Your task to perform on an android device: Open settings Image 0: 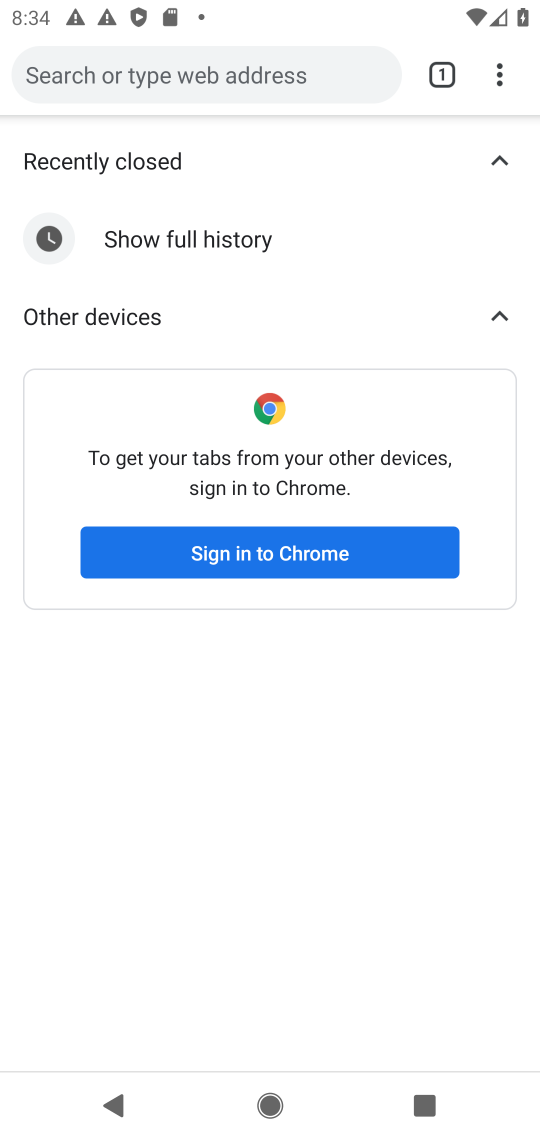
Step 0: press home button
Your task to perform on an android device: Open settings Image 1: 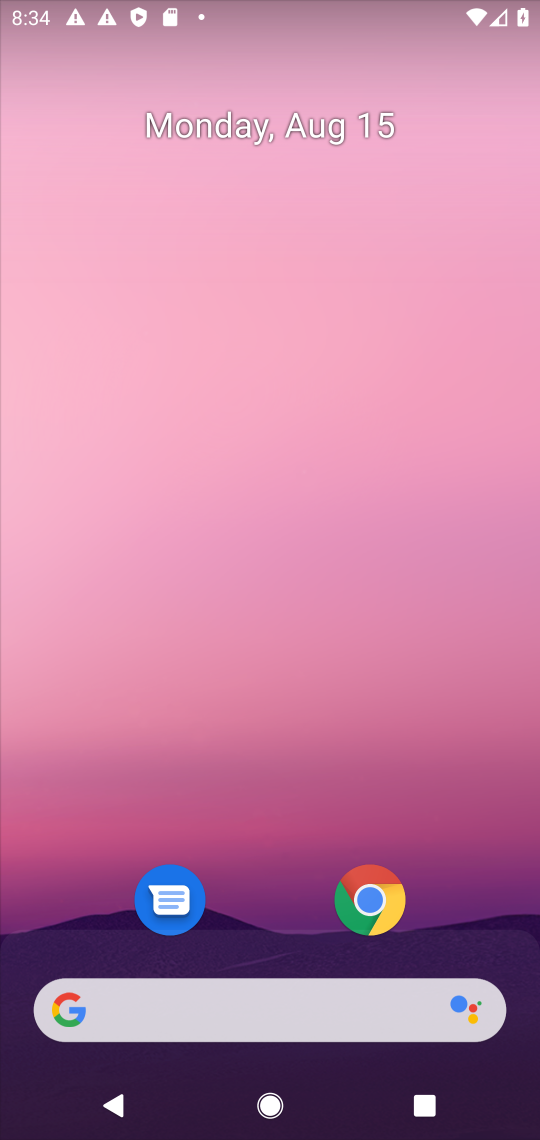
Step 1: drag from (453, 811) to (360, 156)
Your task to perform on an android device: Open settings Image 2: 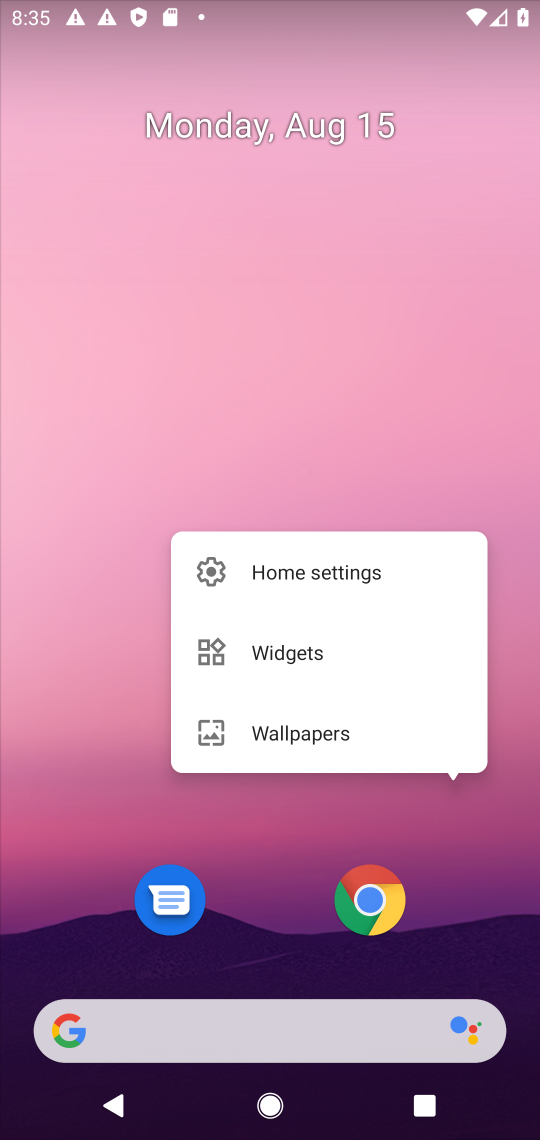
Step 2: click (501, 914)
Your task to perform on an android device: Open settings Image 3: 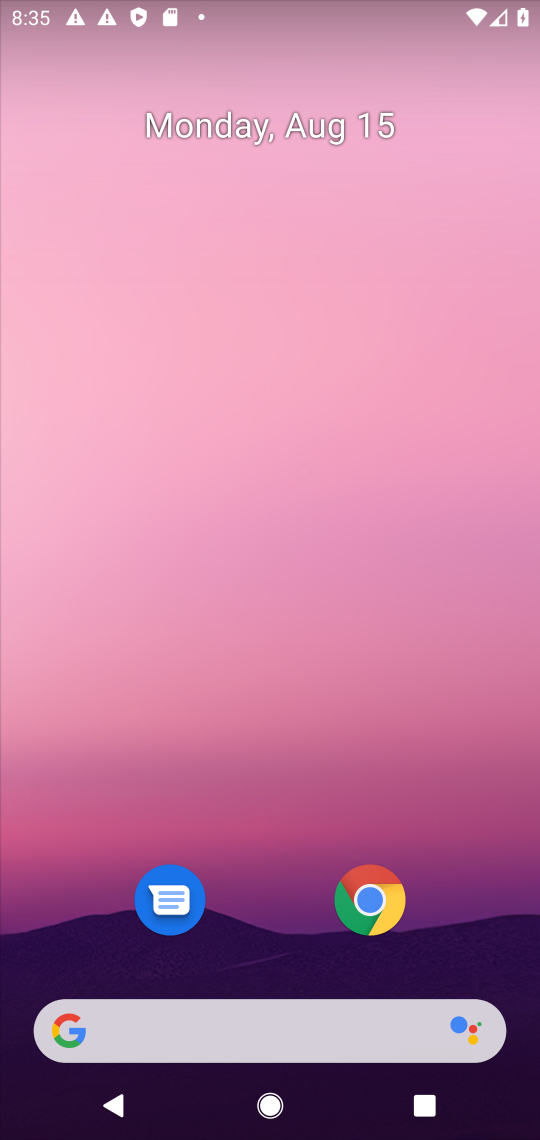
Step 3: drag from (501, 914) to (457, 65)
Your task to perform on an android device: Open settings Image 4: 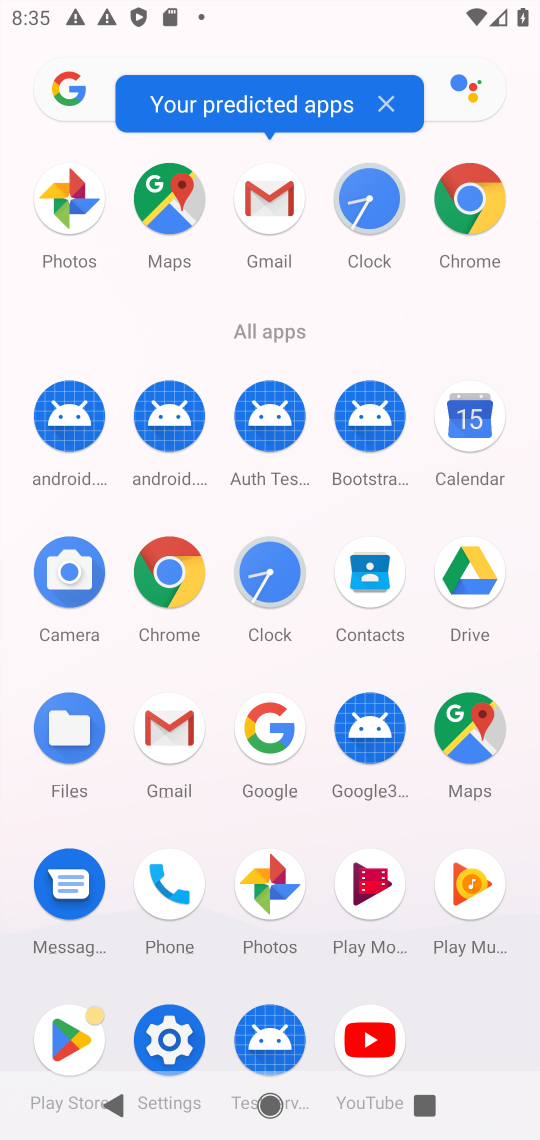
Step 4: click (164, 1032)
Your task to perform on an android device: Open settings Image 5: 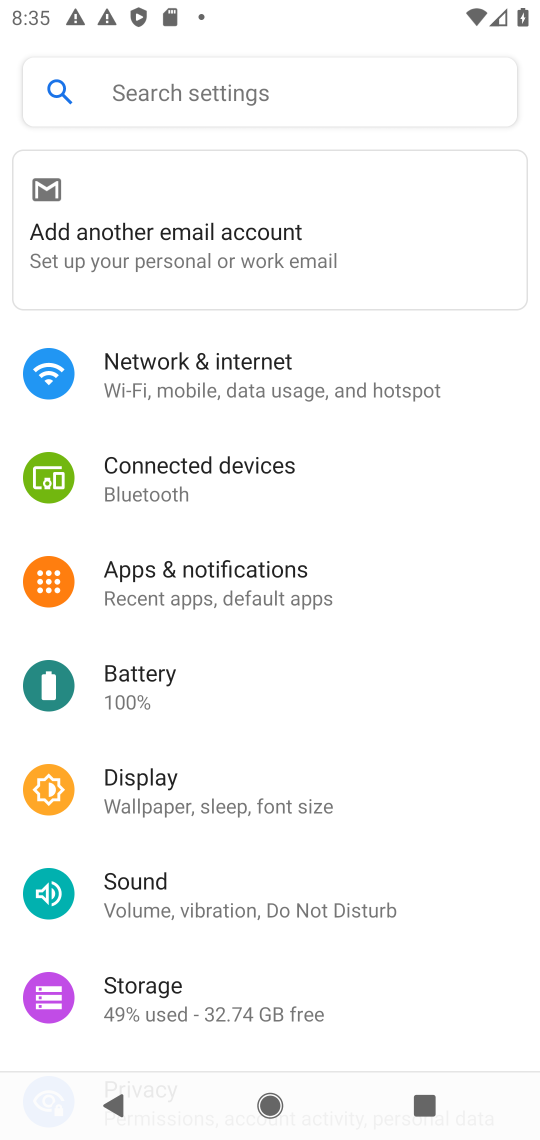
Step 5: task complete